Your task to perform on an android device: toggle priority inbox in the gmail app Image 0: 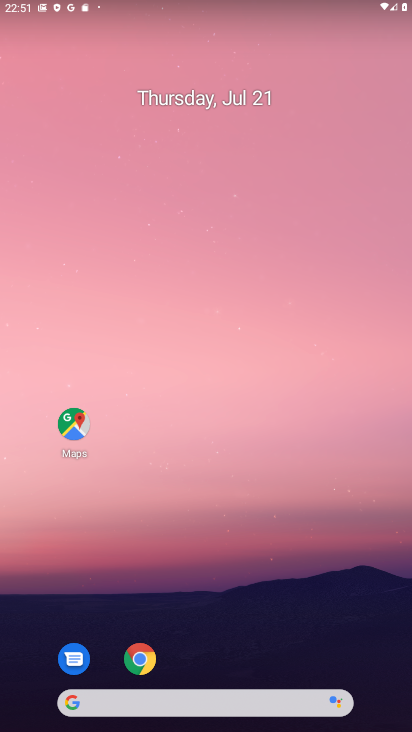
Step 0: drag from (193, 702) to (236, 207)
Your task to perform on an android device: toggle priority inbox in the gmail app Image 1: 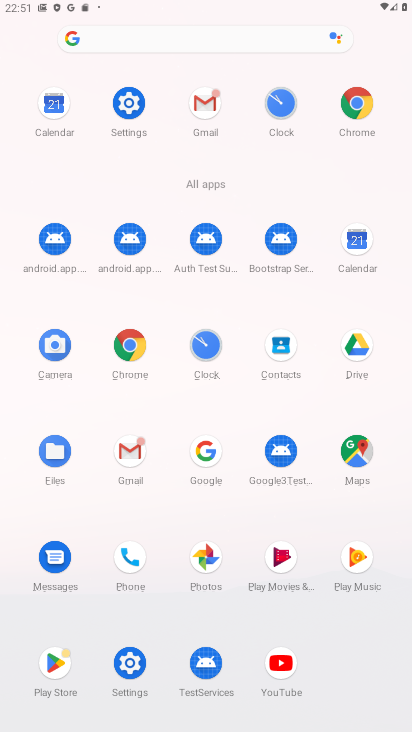
Step 1: click (203, 99)
Your task to perform on an android device: toggle priority inbox in the gmail app Image 2: 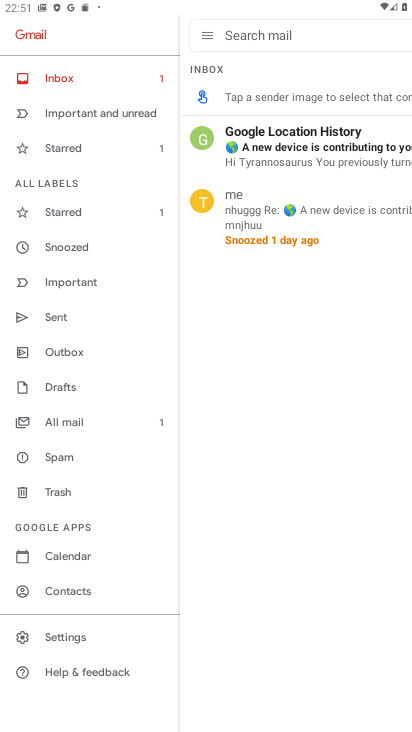
Step 2: click (67, 637)
Your task to perform on an android device: toggle priority inbox in the gmail app Image 3: 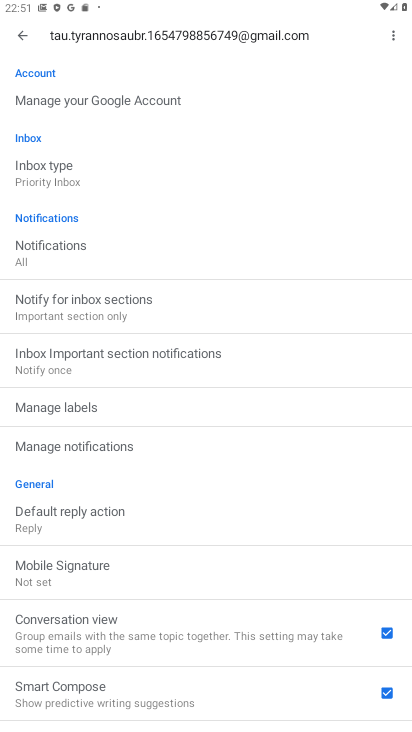
Step 3: click (61, 179)
Your task to perform on an android device: toggle priority inbox in the gmail app Image 4: 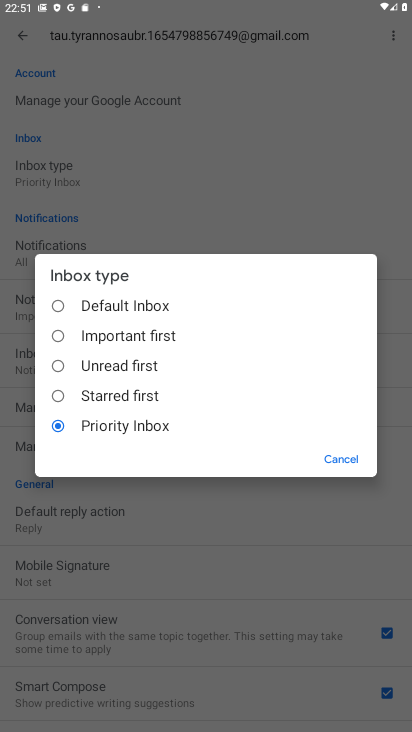
Step 4: click (57, 392)
Your task to perform on an android device: toggle priority inbox in the gmail app Image 5: 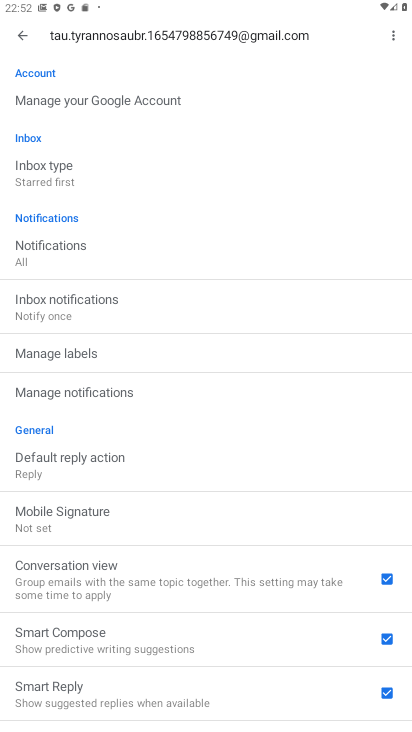
Step 5: task complete